Your task to perform on an android device: open a bookmark in the chrome app Image 0: 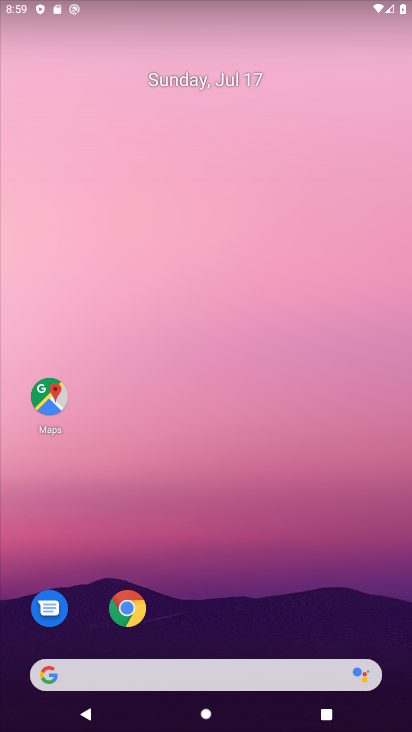
Step 0: drag from (267, 641) to (293, 147)
Your task to perform on an android device: open a bookmark in the chrome app Image 1: 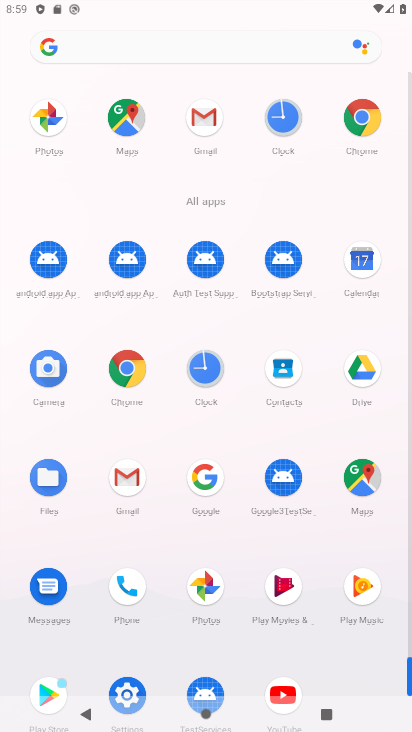
Step 1: click (178, 296)
Your task to perform on an android device: open a bookmark in the chrome app Image 2: 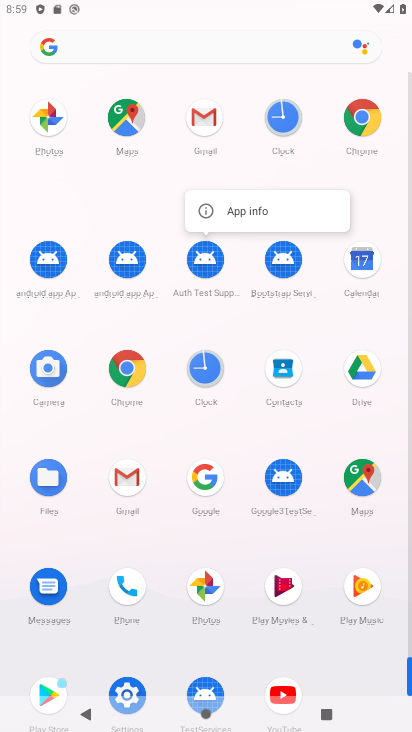
Step 2: click (354, 113)
Your task to perform on an android device: open a bookmark in the chrome app Image 3: 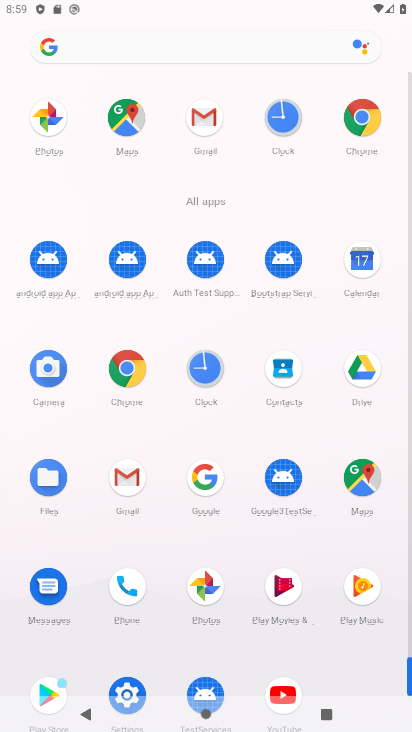
Step 3: click (362, 117)
Your task to perform on an android device: open a bookmark in the chrome app Image 4: 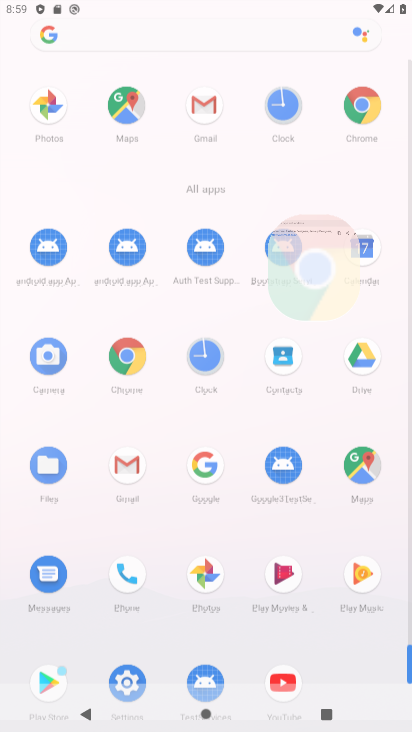
Step 4: click (361, 118)
Your task to perform on an android device: open a bookmark in the chrome app Image 5: 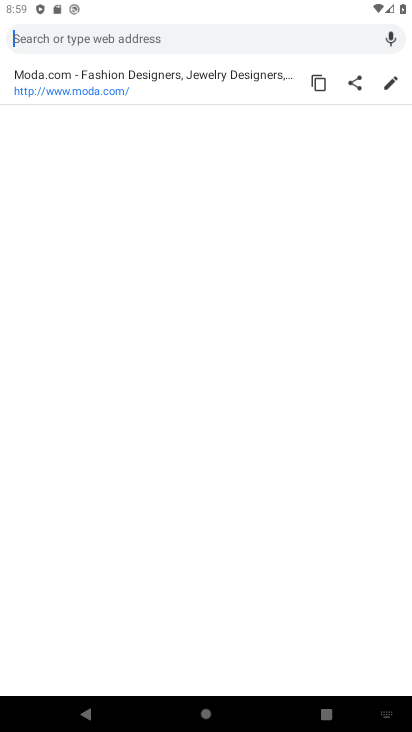
Step 5: click (369, 102)
Your task to perform on an android device: open a bookmark in the chrome app Image 6: 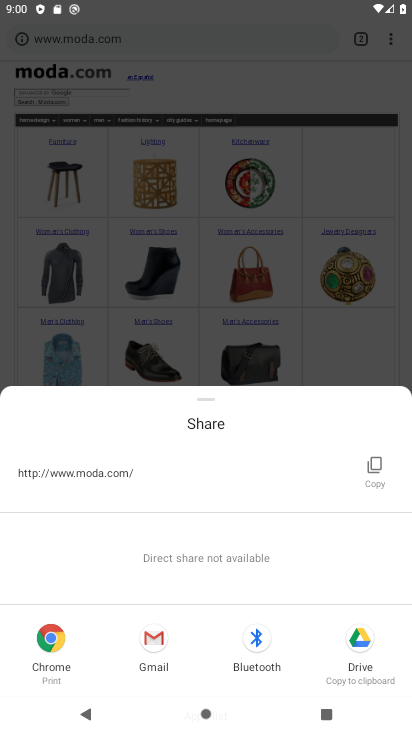
Step 6: click (366, 335)
Your task to perform on an android device: open a bookmark in the chrome app Image 7: 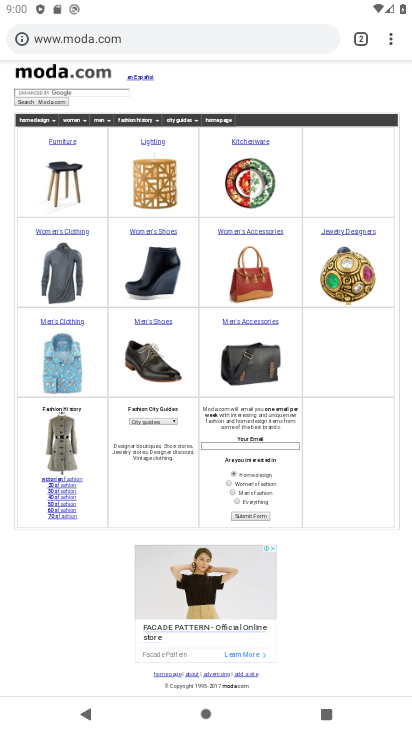
Step 7: drag from (371, 362) to (400, 345)
Your task to perform on an android device: open a bookmark in the chrome app Image 8: 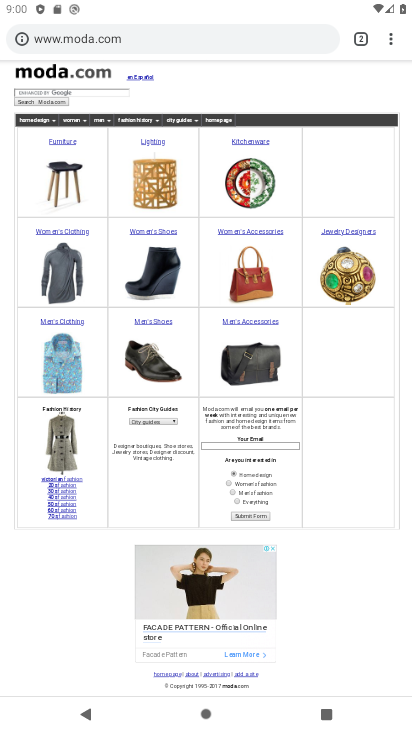
Step 8: click (403, 336)
Your task to perform on an android device: open a bookmark in the chrome app Image 9: 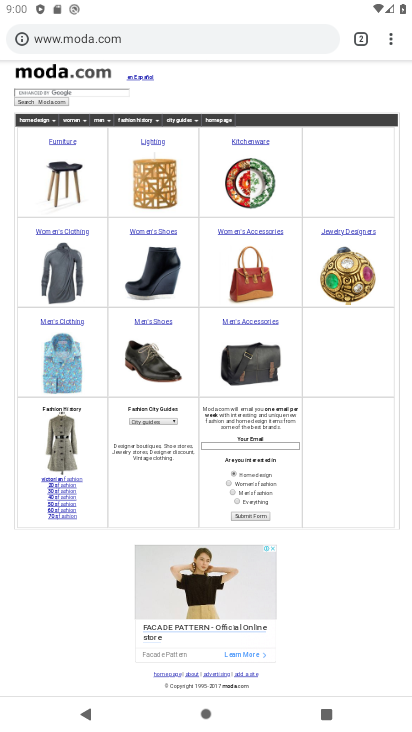
Step 9: task complete